Your task to perform on an android device: change notification settings in the gmail app Image 0: 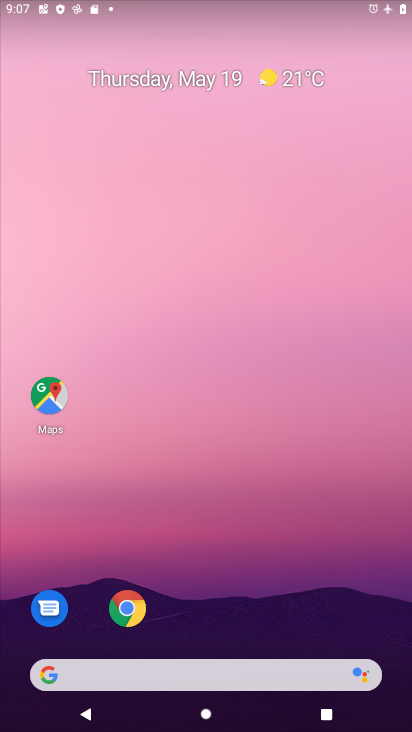
Step 0: drag from (233, 468) to (177, 90)
Your task to perform on an android device: change notification settings in the gmail app Image 1: 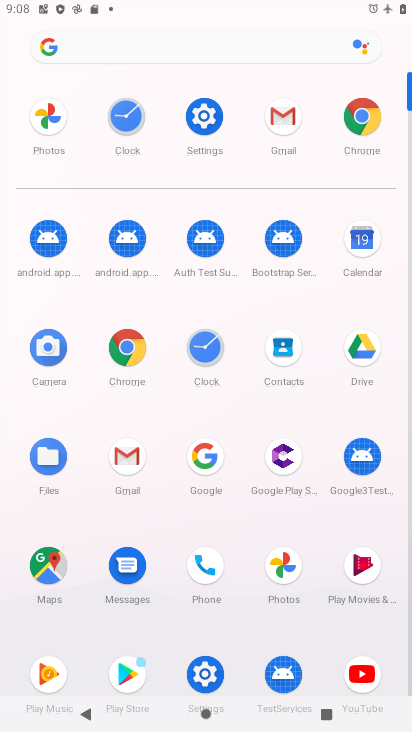
Step 1: click (285, 119)
Your task to perform on an android device: change notification settings in the gmail app Image 2: 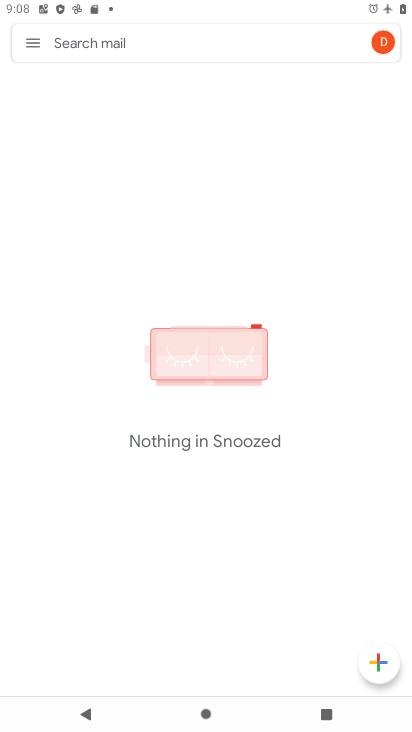
Step 2: click (33, 47)
Your task to perform on an android device: change notification settings in the gmail app Image 3: 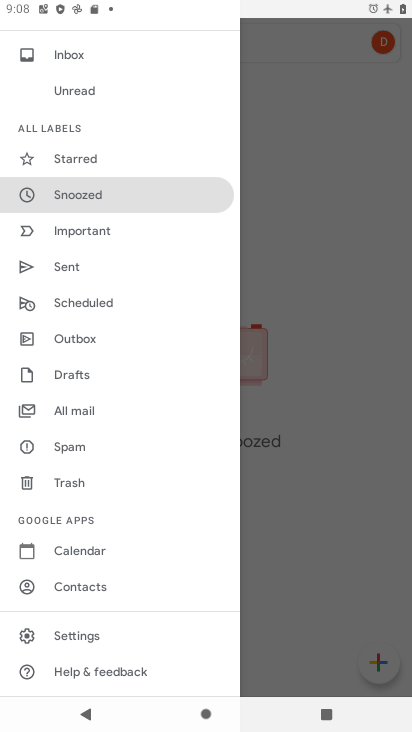
Step 3: click (64, 634)
Your task to perform on an android device: change notification settings in the gmail app Image 4: 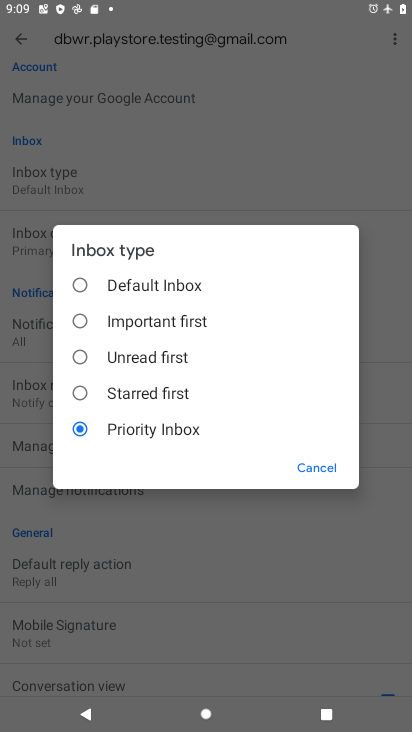
Step 4: click (323, 468)
Your task to perform on an android device: change notification settings in the gmail app Image 5: 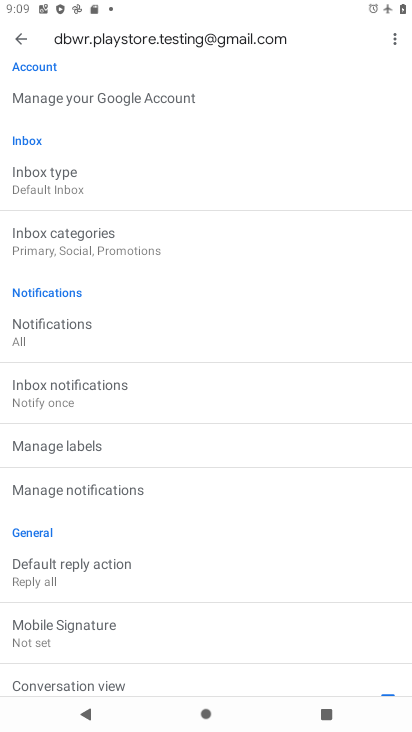
Step 5: click (19, 35)
Your task to perform on an android device: change notification settings in the gmail app Image 6: 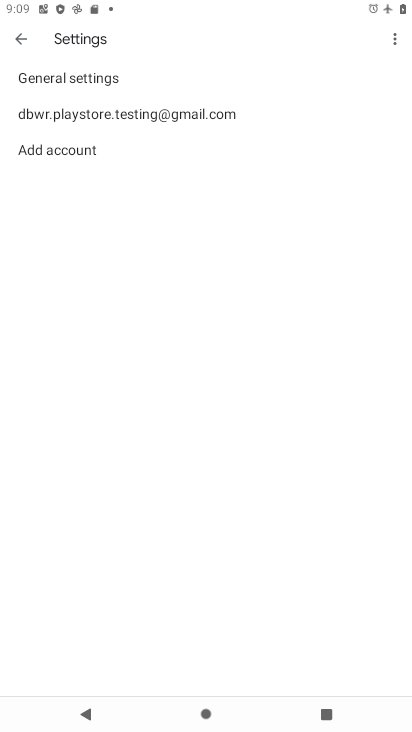
Step 6: click (78, 81)
Your task to perform on an android device: change notification settings in the gmail app Image 7: 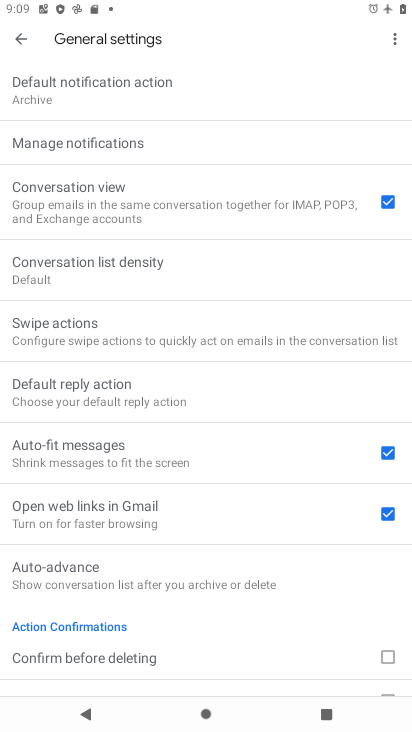
Step 7: click (71, 134)
Your task to perform on an android device: change notification settings in the gmail app Image 8: 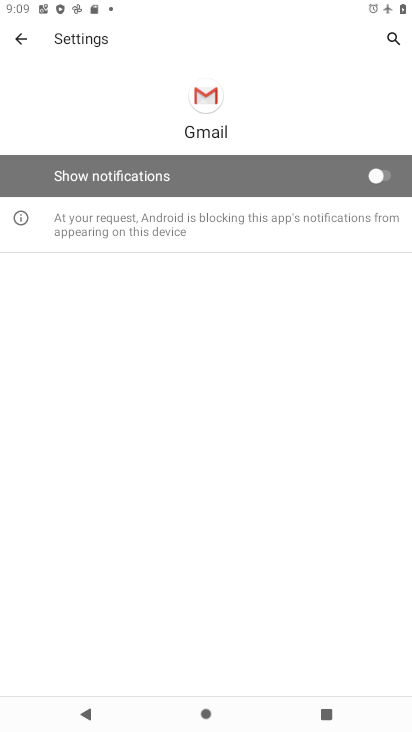
Step 8: click (380, 177)
Your task to perform on an android device: change notification settings in the gmail app Image 9: 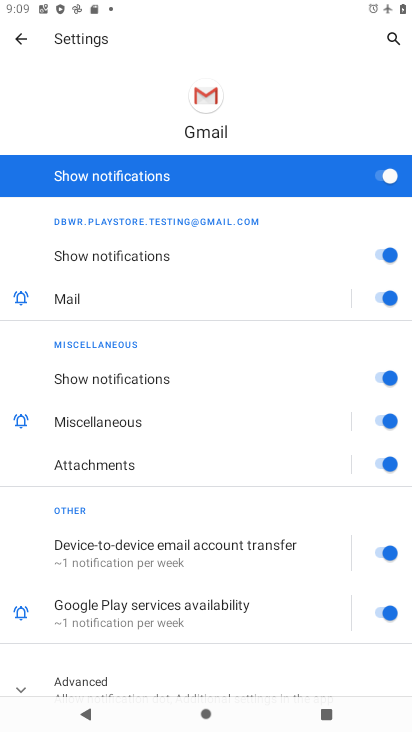
Step 9: task complete